Your task to perform on an android device: Set the phone to "Do not disturb". Image 0: 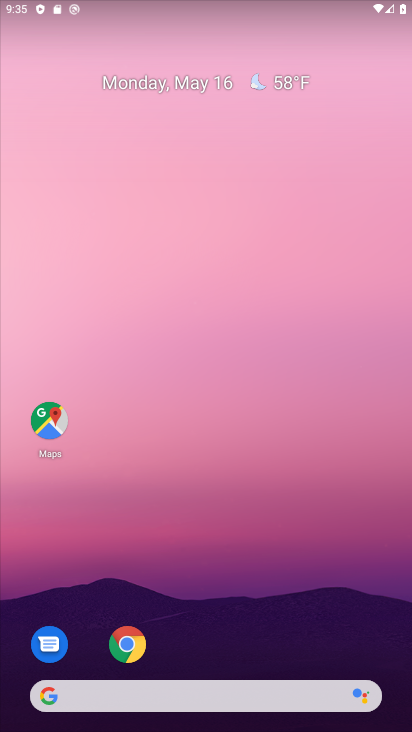
Step 0: drag from (227, 697) to (177, 110)
Your task to perform on an android device: Set the phone to "Do not disturb". Image 1: 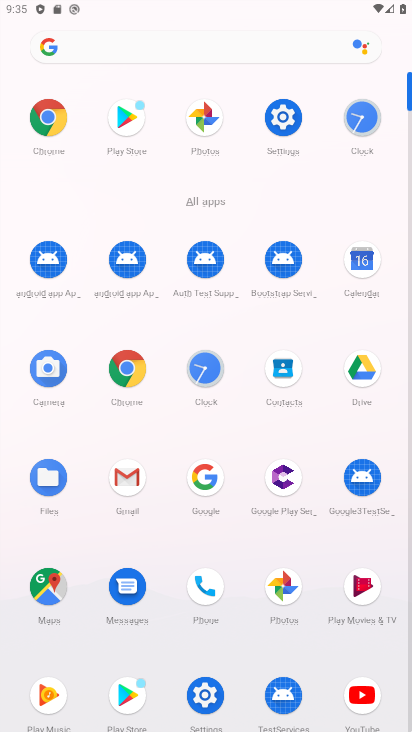
Step 1: click (273, 117)
Your task to perform on an android device: Set the phone to "Do not disturb". Image 2: 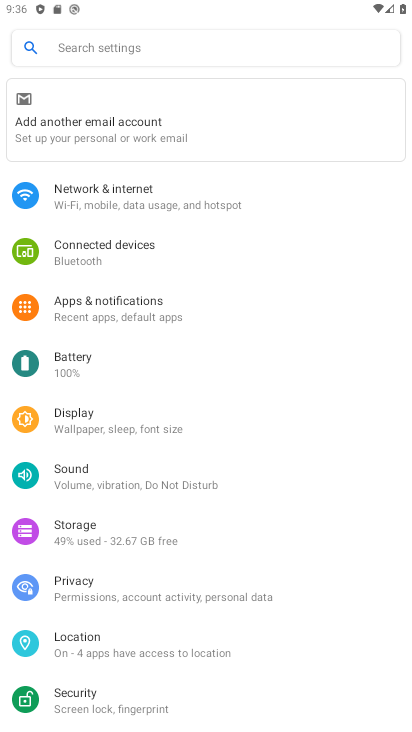
Step 2: click (90, 482)
Your task to perform on an android device: Set the phone to "Do not disturb". Image 3: 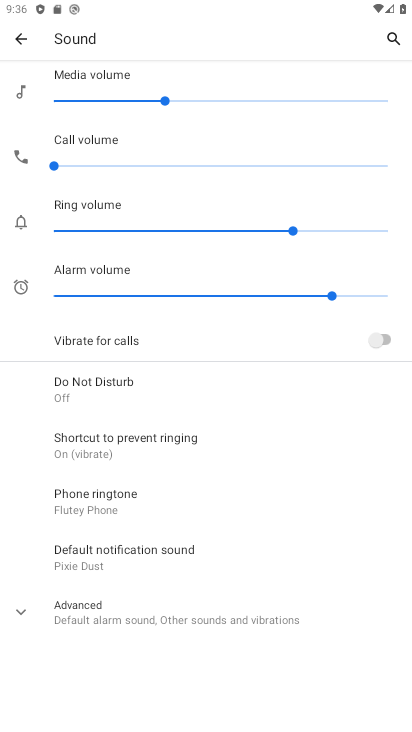
Step 3: click (94, 399)
Your task to perform on an android device: Set the phone to "Do not disturb". Image 4: 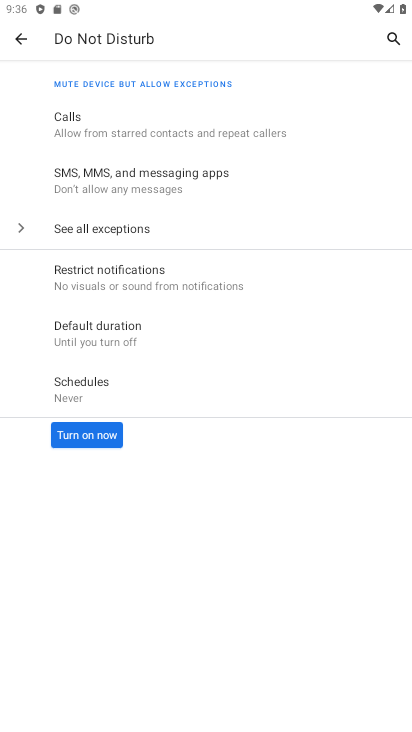
Step 4: click (116, 438)
Your task to perform on an android device: Set the phone to "Do not disturb". Image 5: 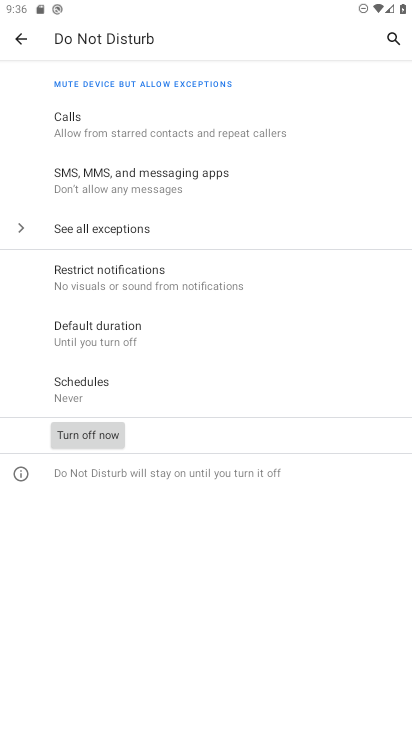
Step 5: task complete